Your task to perform on an android device: Go to Wikipedia Image 0: 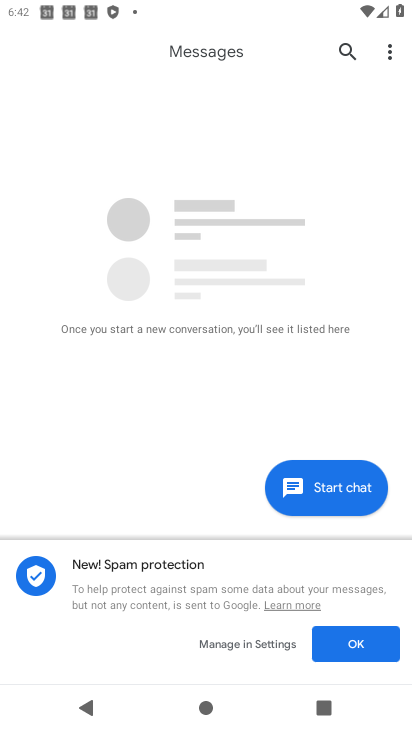
Step 0: press home button
Your task to perform on an android device: Go to Wikipedia Image 1: 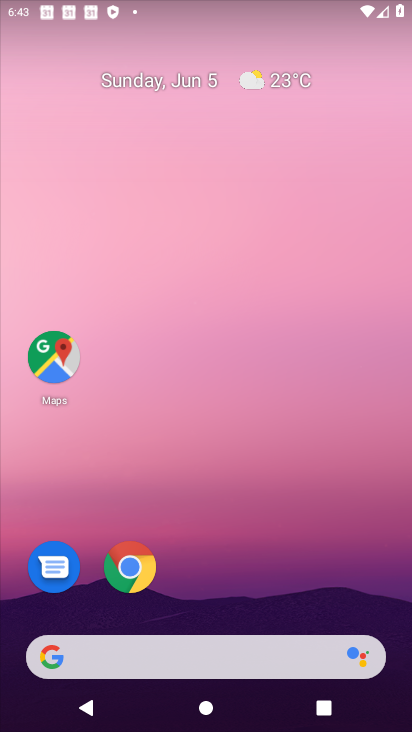
Step 1: drag from (389, 584) to (275, 73)
Your task to perform on an android device: Go to Wikipedia Image 2: 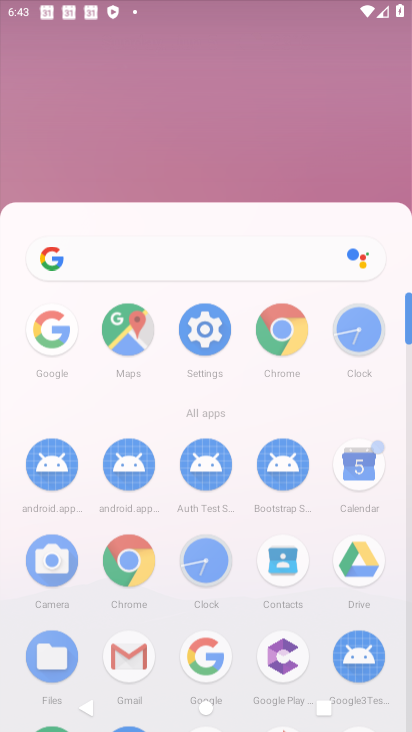
Step 2: click (239, 16)
Your task to perform on an android device: Go to Wikipedia Image 3: 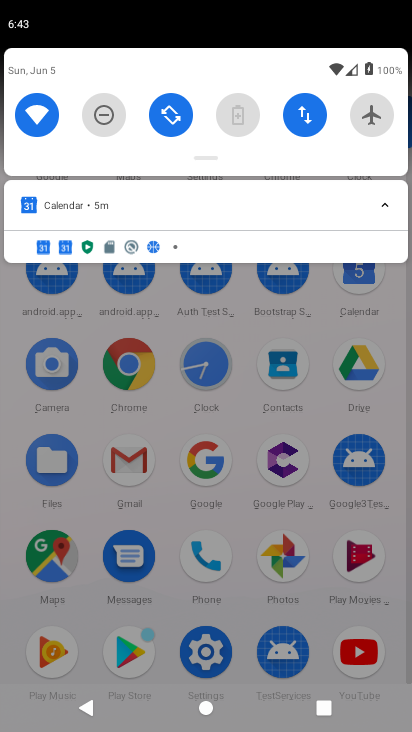
Step 3: click (195, 474)
Your task to perform on an android device: Go to Wikipedia Image 4: 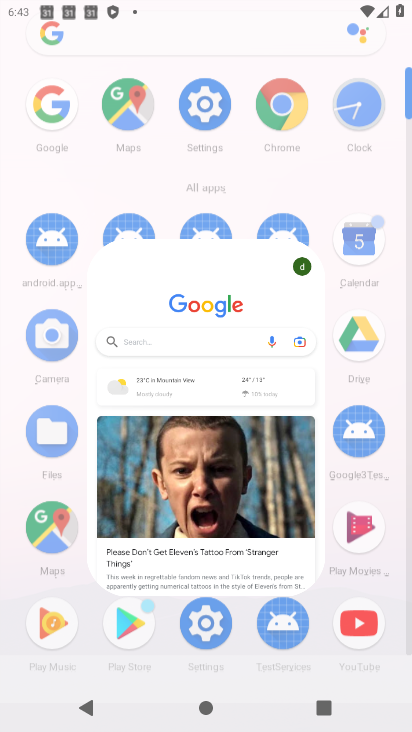
Step 4: click (200, 463)
Your task to perform on an android device: Go to Wikipedia Image 5: 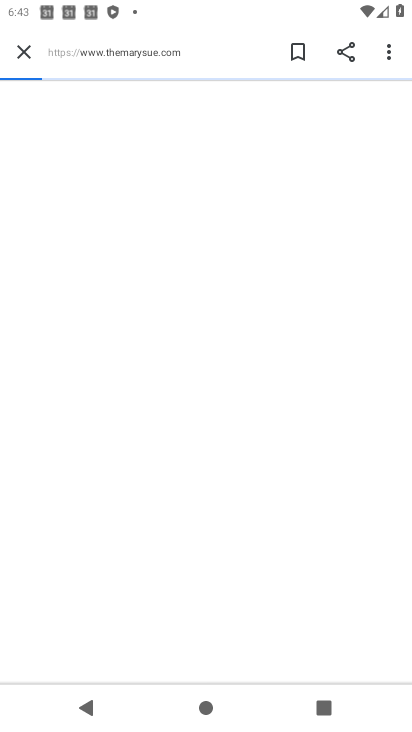
Step 5: press back button
Your task to perform on an android device: Go to Wikipedia Image 6: 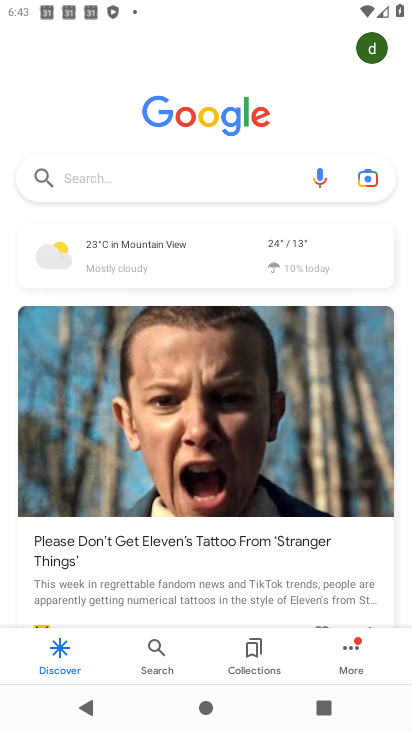
Step 6: click (184, 163)
Your task to perform on an android device: Go to Wikipedia Image 7: 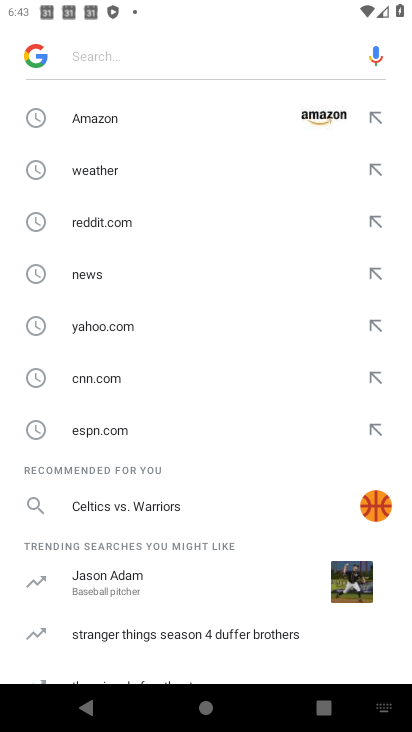
Step 7: type "wikipedia"
Your task to perform on an android device: Go to Wikipedia Image 8: 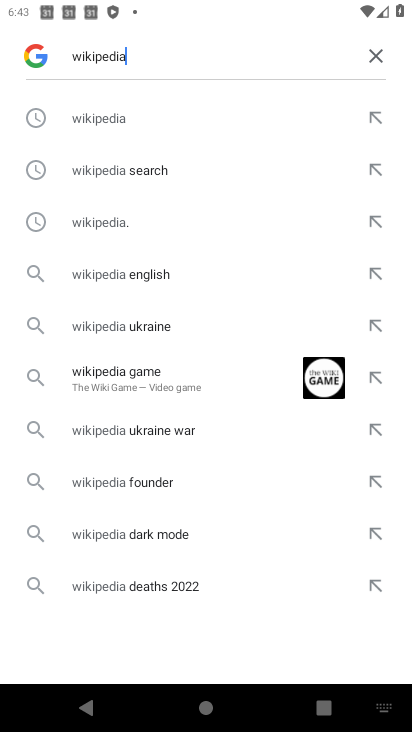
Step 8: click (115, 129)
Your task to perform on an android device: Go to Wikipedia Image 9: 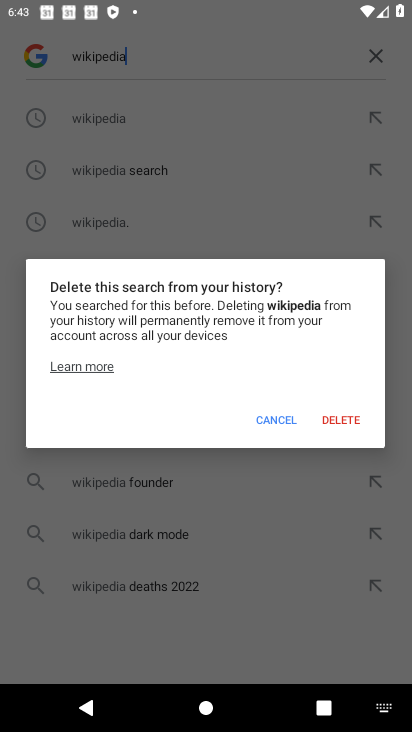
Step 9: click (281, 421)
Your task to perform on an android device: Go to Wikipedia Image 10: 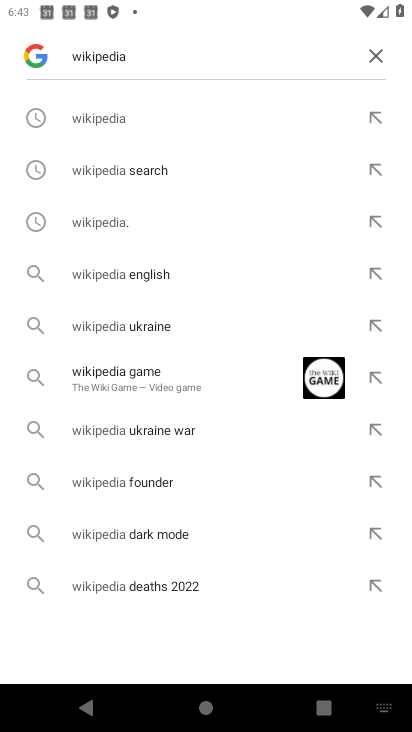
Step 10: click (122, 121)
Your task to perform on an android device: Go to Wikipedia Image 11: 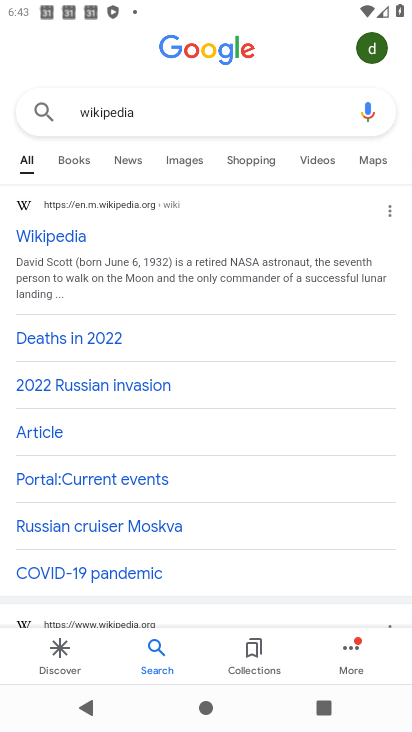
Step 11: task complete